Your task to perform on an android device: read, delete, or share a saved page in the chrome app Image 0: 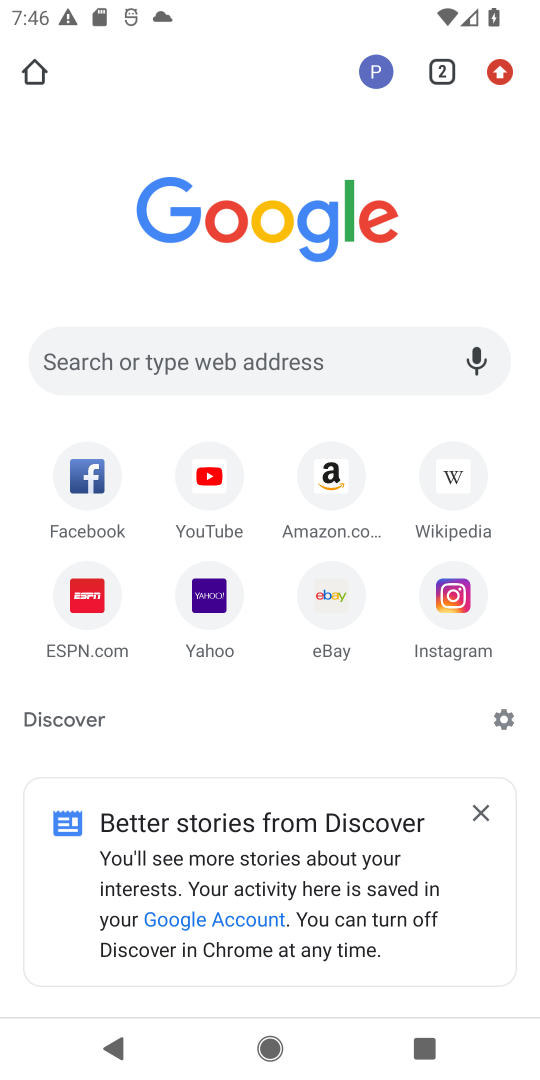
Step 0: click (503, 71)
Your task to perform on an android device: read, delete, or share a saved page in the chrome app Image 1: 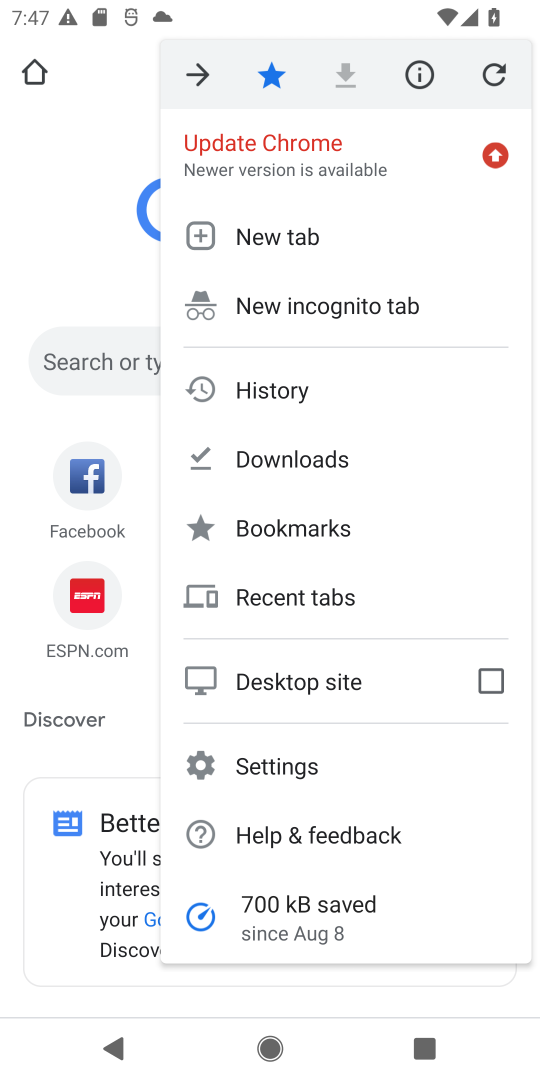
Step 1: click (307, 463)
Your task to perform on an android device: read, delete, or share a saved page in the chrome app Image 2: 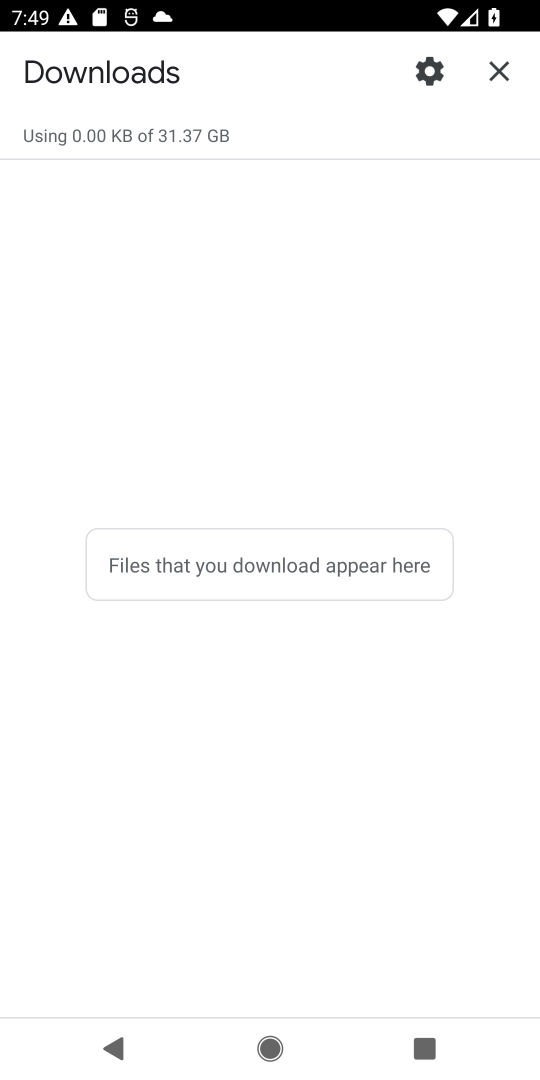
Step 2: task complete